Your task to perform on an android device: turn on wifi Image 0: 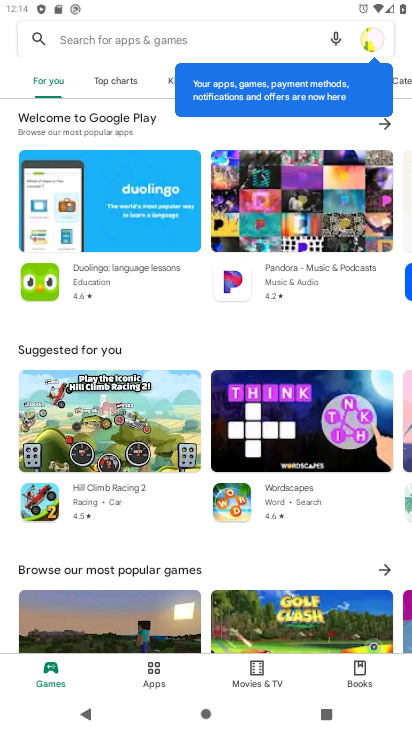
Step 0: press home button
Your task to perform on an android device: turn on wifi Image 1: 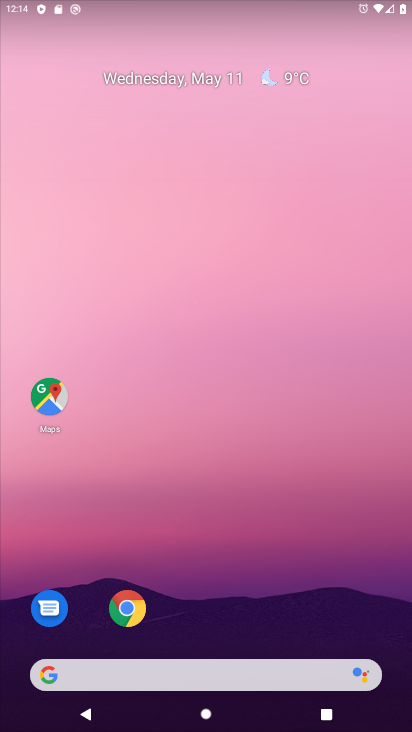
Step 1: drag from (219, 673) to (211, 269)
Your task to perform on an android device: turn on wifi Image 2: 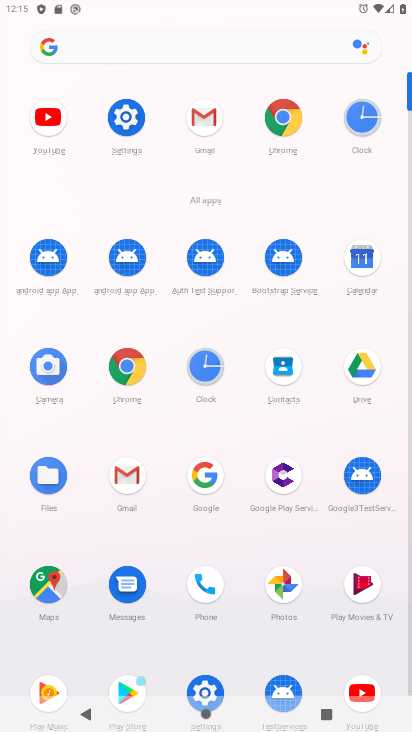
Step 2: click (135, 131)
Your task to perform on an android device: turn on wifi Image 3: 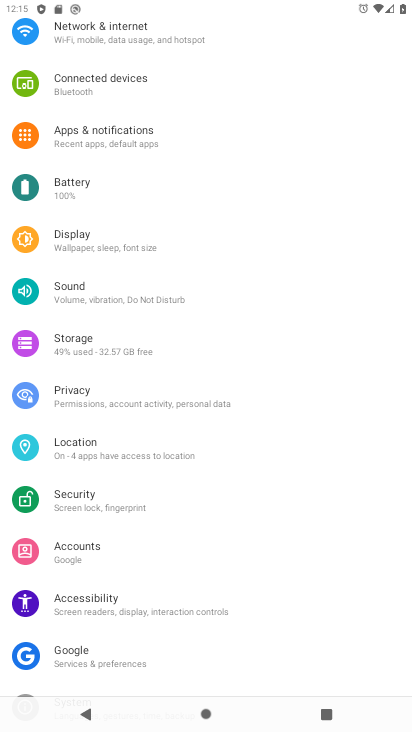
Step 3: drag from (150, 115) to (141, 409)
Your task to perform on an android device: turn on wifi Image 4: 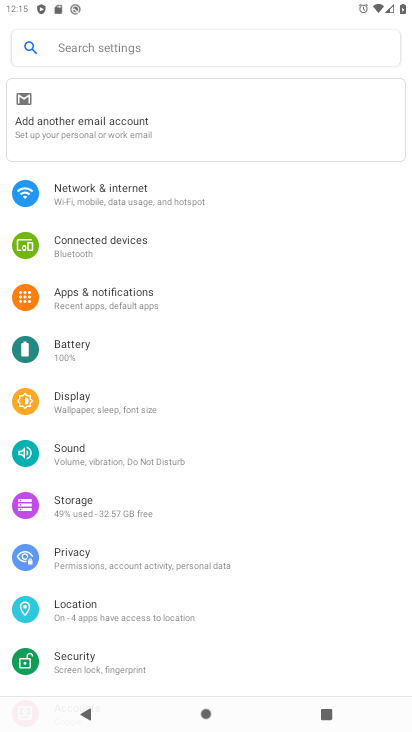
Step 4: click (251, 193)
Your task to perform on an android device: turn on wifi Image 5: 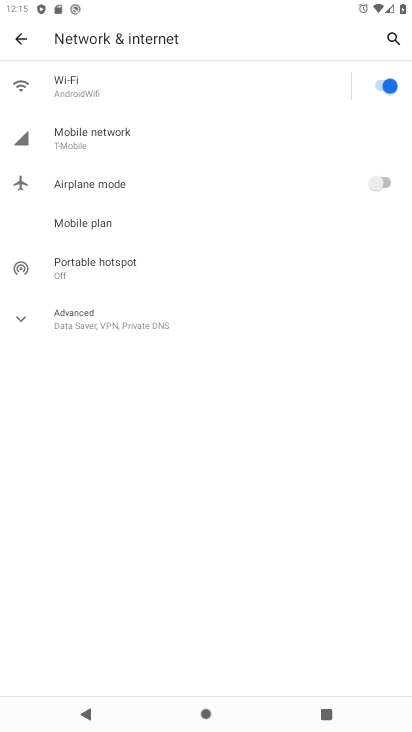
Step 5: task complete